Your task to perform on an android device: visit the assistant section in the google photos Image 0: 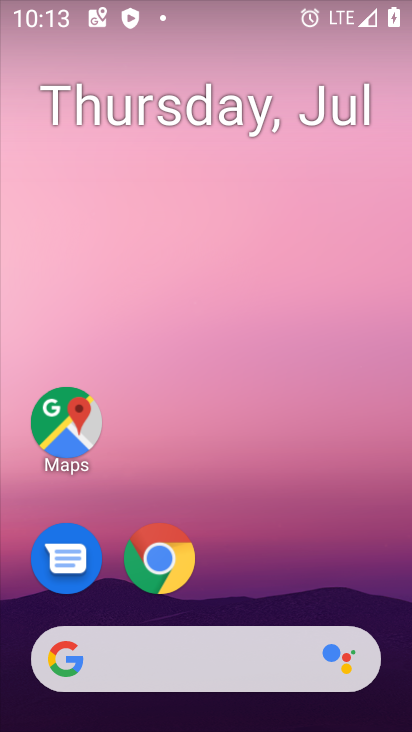
Step 0: drag from (371, 544) to (353, 152)
Your task to perform on an android device: visit the assistant section in the google photos Image 1: 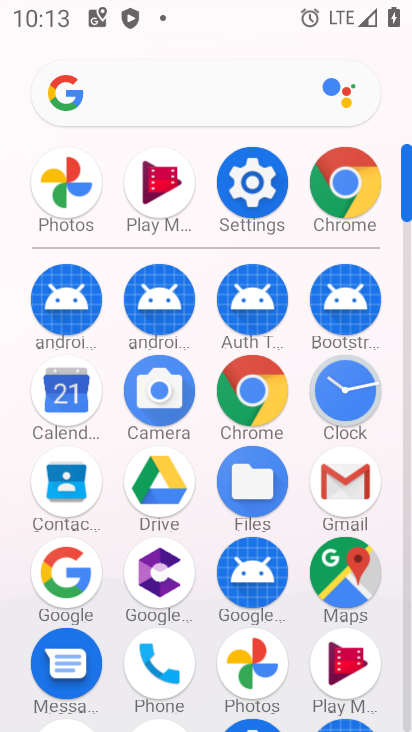
Step 1: click (71, 193)
Your task to perform on an android device: visit the assistant section in the google photos Image 2: 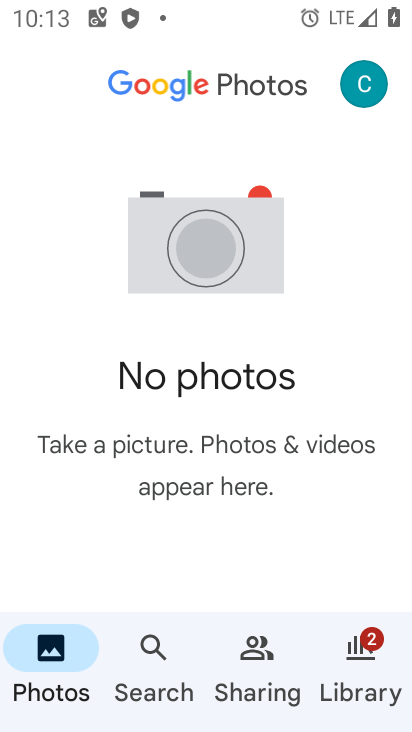
Step 2: click (377, 646)
Your task to perform on an android device: visit the assistant section in the google photos Image 3: 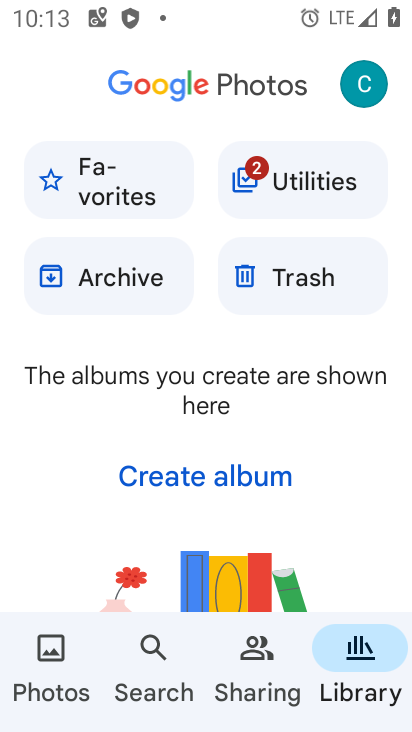
Step 3: task complete